Your task to perform on an android device: turn off picture-in-picture Image 0: 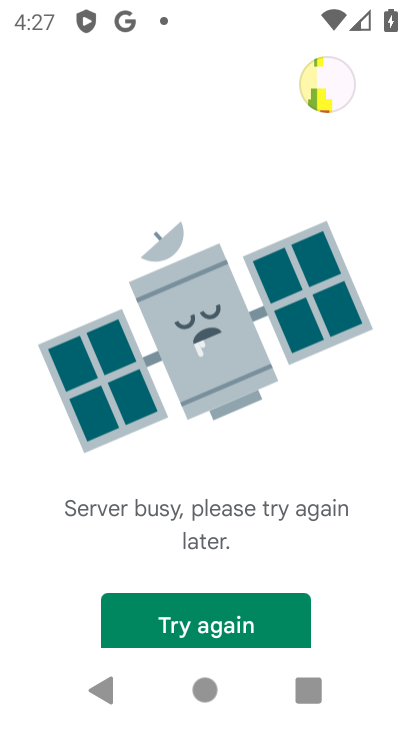
Step 0: press home button
Your task to perform on an android device: turn off picture-in-picture Image 1: 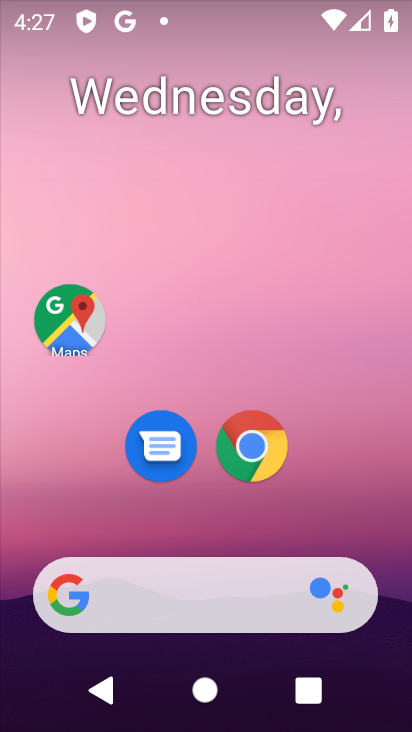
Step 1: drag from (122, 386) to (169, 9)
Your task to perform on an android device: turn off picture-in-picture Image 2: 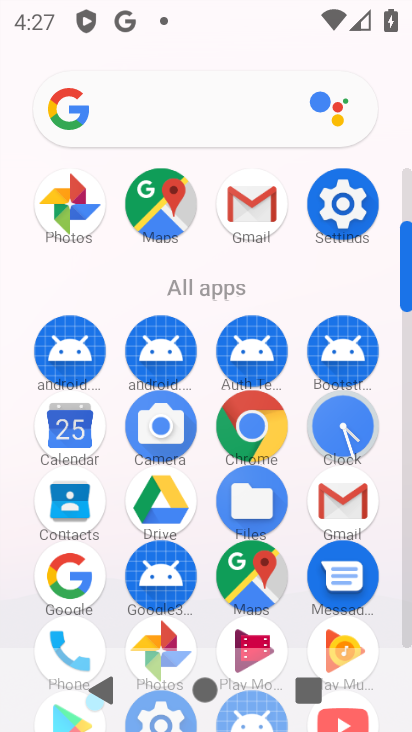
Step 2: drag from (114, 548) to (198, 252)
Your task to perform on an android device: turn off picture-in-picture Image 3: 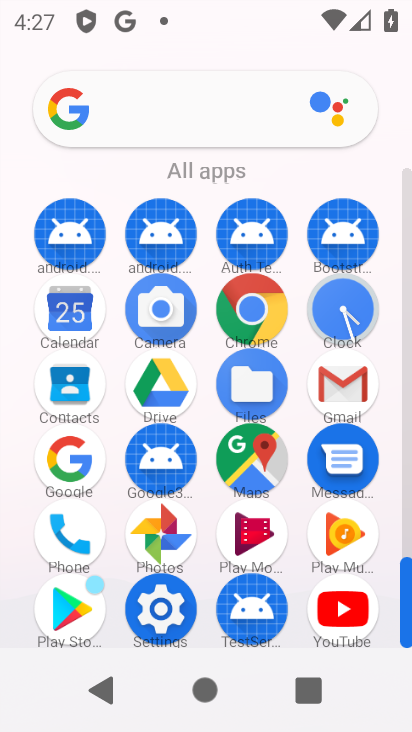
Step 3: click (162, 615)
Your task to perform on an android device: turn off picture-in-picture Image 4: 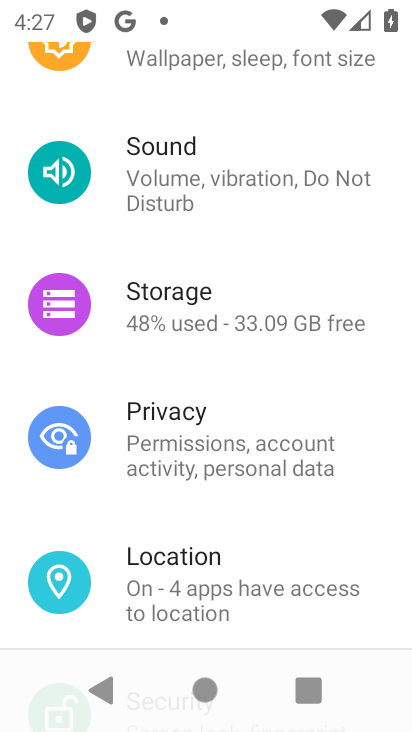
Step 4: drag from (184, 330) to (179, 674)
Your task to perform on an android device: turn off picture-in-picture Image 5: 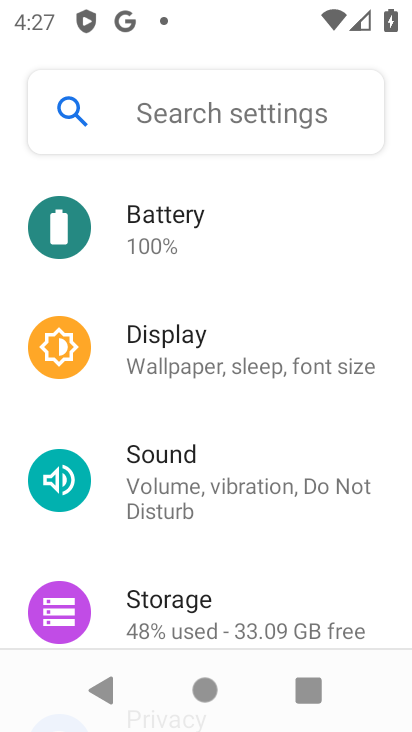
Step 5: drag from (226, 381) to (203, 731)
Your task to perform on an android device: turn off picture-in-picture Image 6: 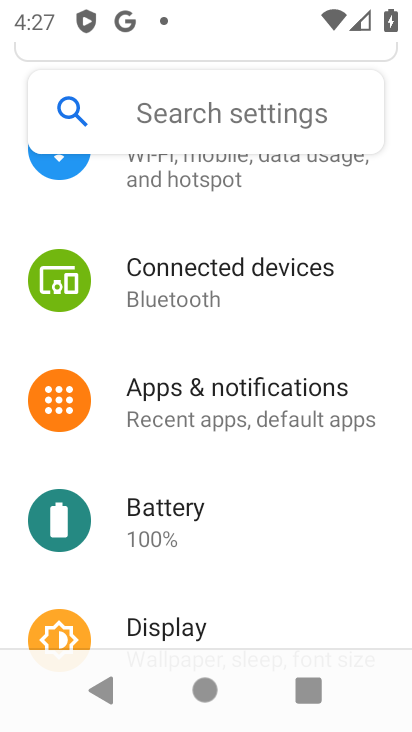
Step 6: click (217, 414)
Your task to perform on an android device: turn off picture-in-picture Image 7: 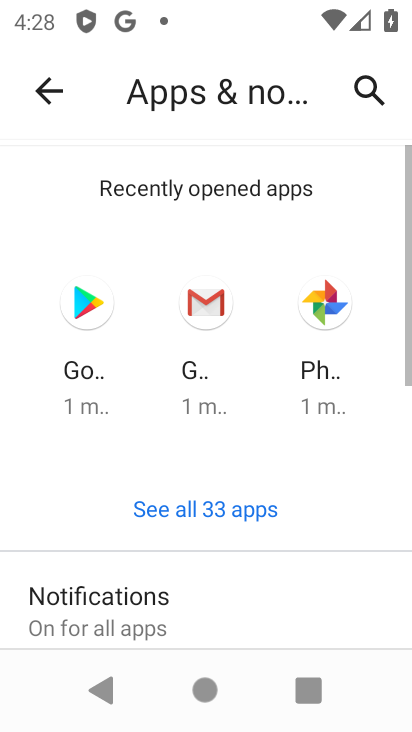
Step 7: drag from (148, 598) to (244, 195)
Your task to perform on an android device: turn off picture-in-picture Image 8: 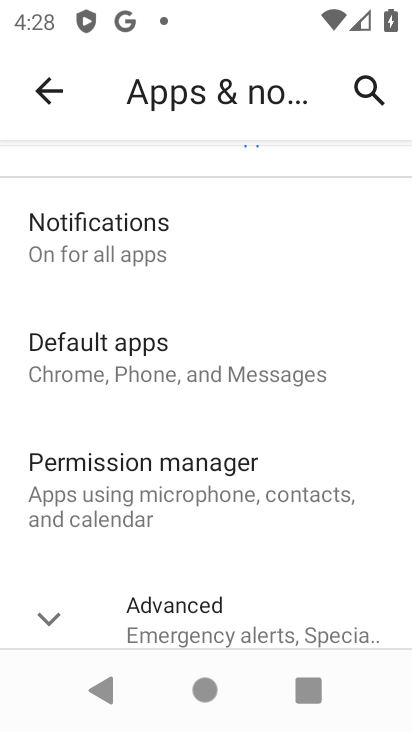
Step 8: drag from (199, 580) to (252, 302)
Your task to perform on an android device: turn off picture-in-picture Image 9: 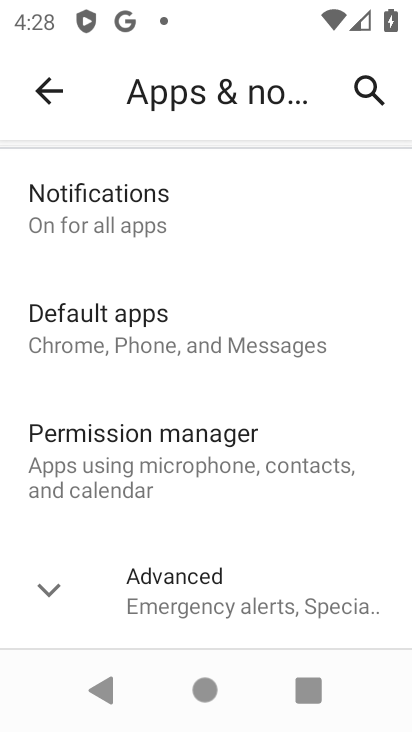
Step 9: click (196, 601)
Your task to perform on an android device: turn off picture-in-picture Image 10: 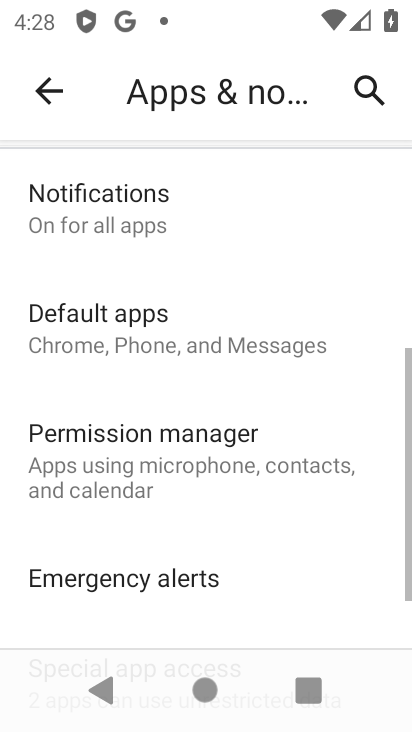
Step 10: drag from (158, 639) to (276, 252)
Your task to perform on an android device: turn off picture-in-picture Image 11: 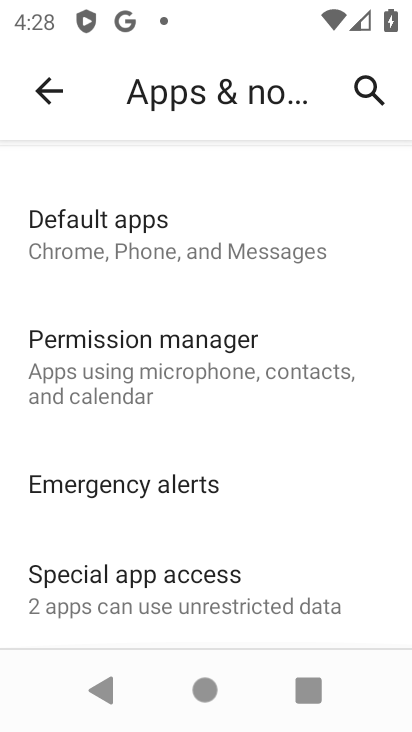
Step 11: click (201, 595)
Your task to perform on an android device: turn off picture-in-picture Image 12: 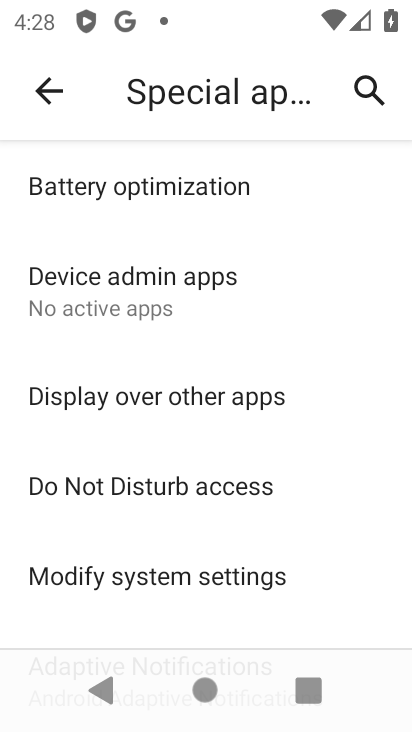
Step 12: drag from (162, 577) to (234, 225)
Your task to perform on an android device: turn off picture-in-picture Image 13: 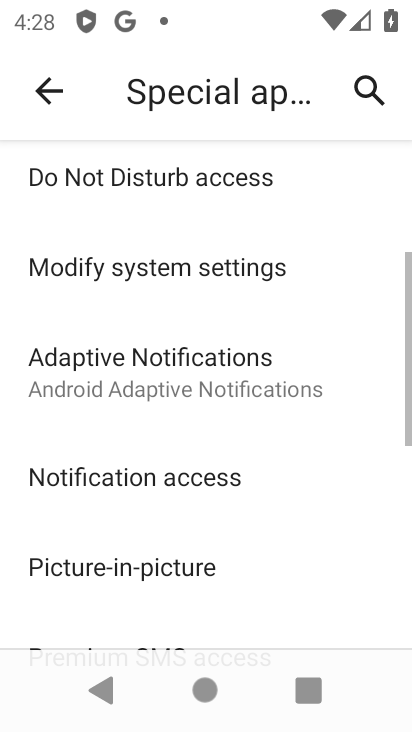
Step 13: click (182, 588)
Your task to perform on an android device: turn off picture-in-picture Image 14: 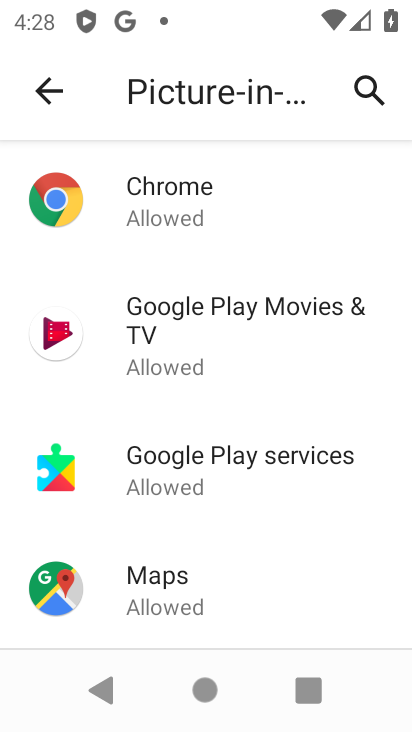
Step 14: click (210, 215)
Your task to perform on an android device: turn off picture-in-picture Image 15: 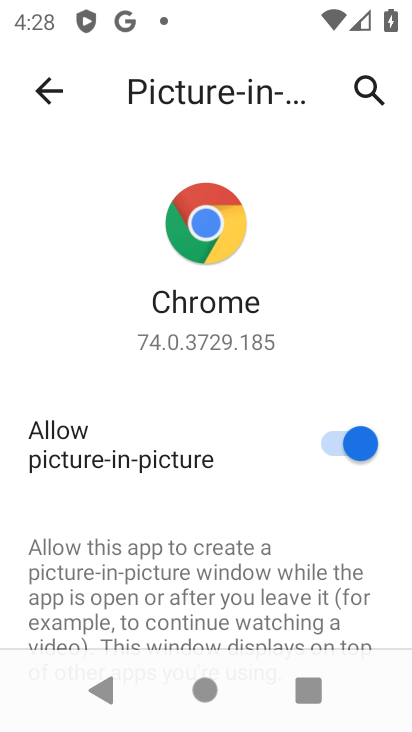
Step 15: click (329, 443)
Your task to perform on an android device: turn off picture-in-picture Image 16: 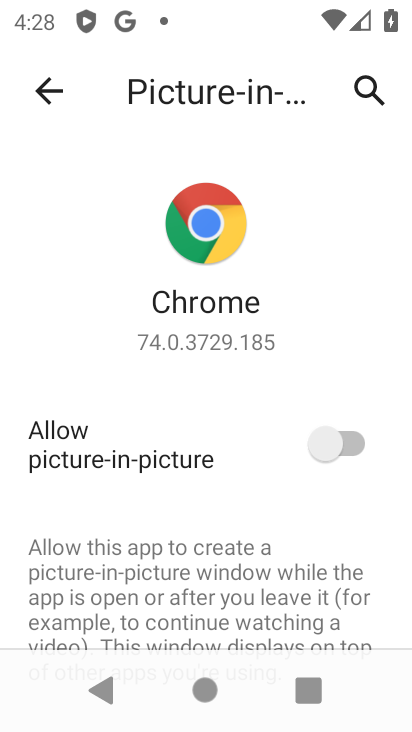
Step 16: press back button
Your task to perform on an android device: turn off picture-in-picture Image 17: 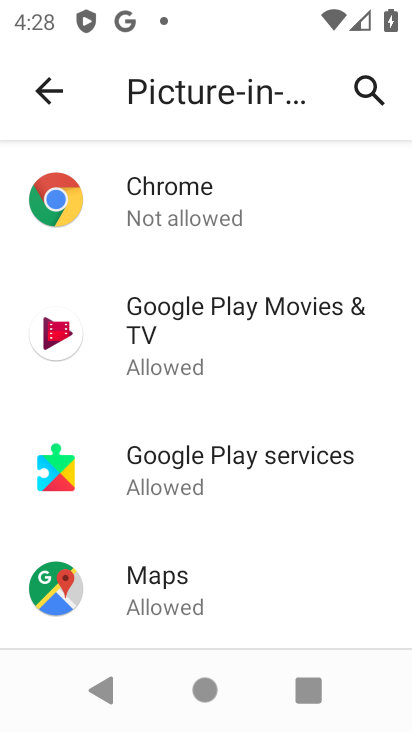
Step 17: click (297, 336)
Your task to perform on an android device: turn off picture-in-picture Image 18: 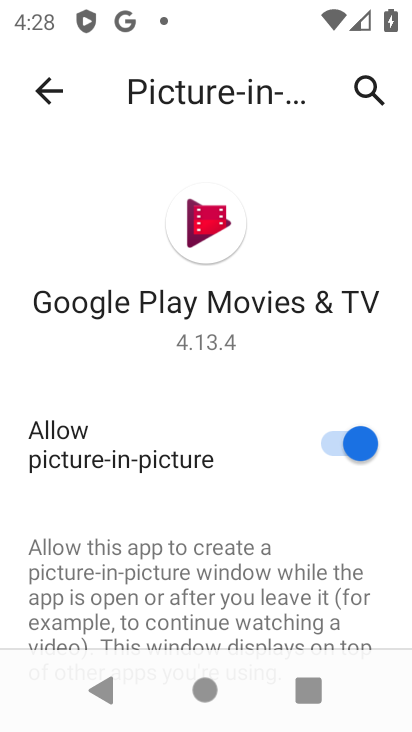
Step 18: click (321, 440)
Your task to perform on an android device: turn off picture-in-picture Image 19: 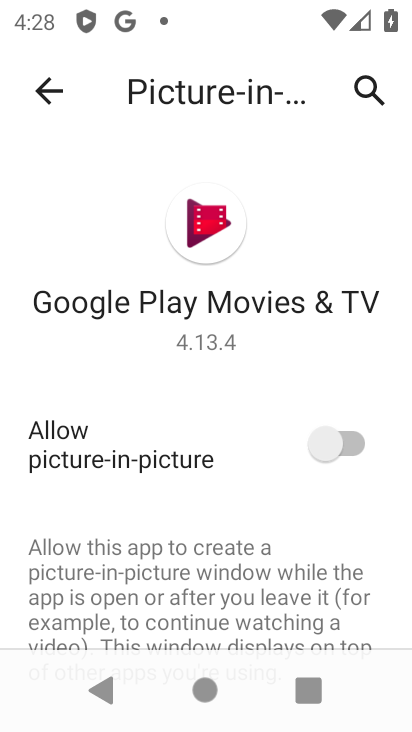
Step 19: press back button
Your task to perform on an android device: turn off picture-in-picture Image 20: 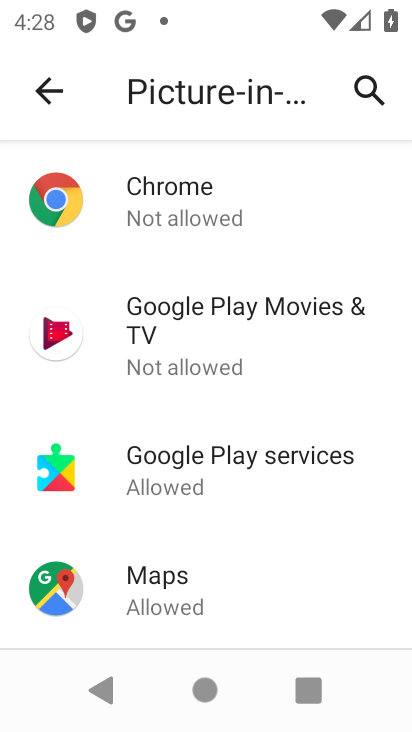
Step 20: click (279, 485)
Your task to perform on an android device: turn off picture-in-picture Image 21: 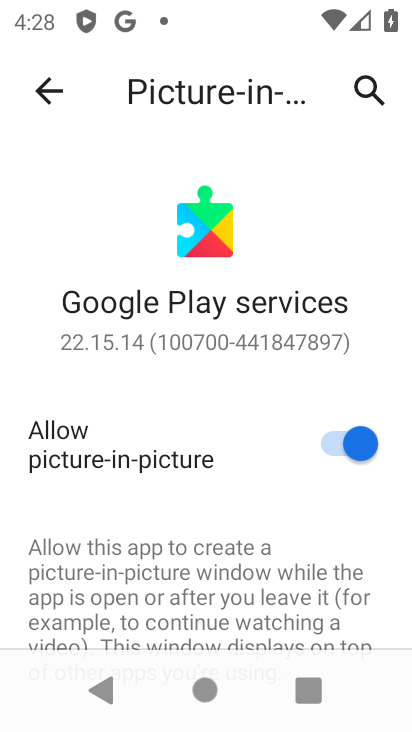
Step 21: click (336, 430)
Your task to perform on an android device: turn off picture-in-picture Image 22: 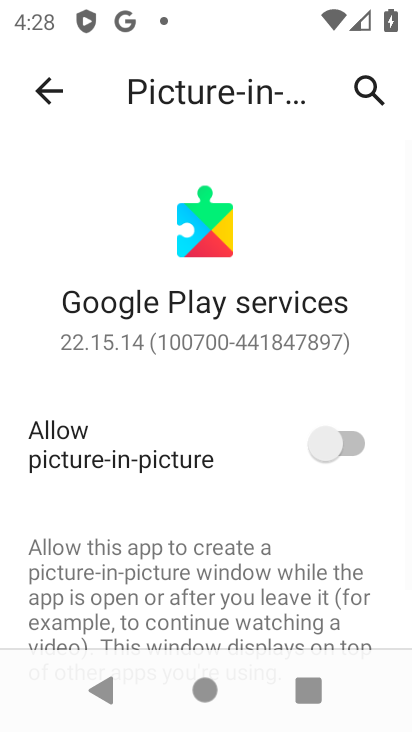
Step 22: press back button
Your task to perform on an android device: turn off picture-in-picture Image 23: 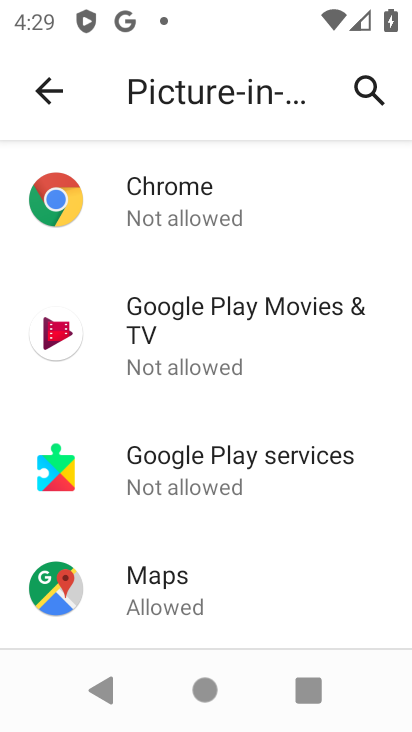
Step 23: drag from (227, 590) to (325, 183)
Your task to perform on an android device: turn off picture-in-picture Image 24: 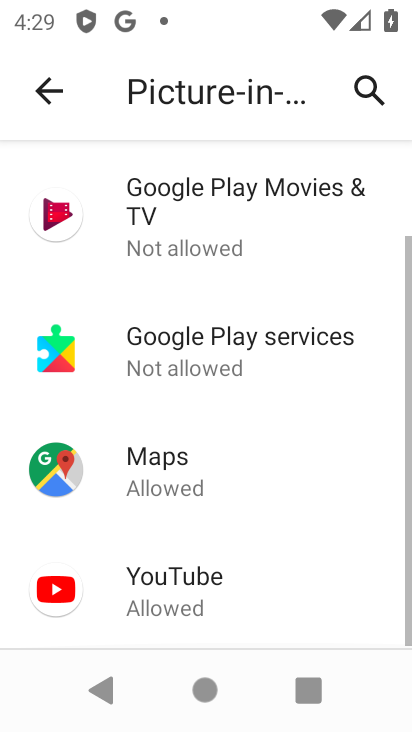
Step 24: click (269, 498)
Your task to perform on an android device: turn off picture-in-picture Image 25: 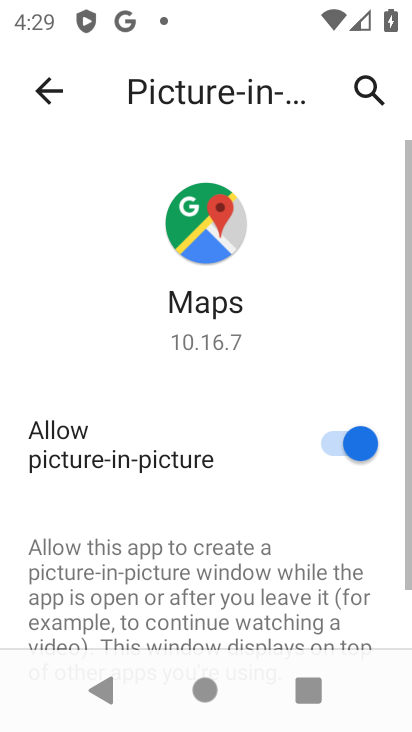
Step 25: click (329, 452)
Your task to perform on an android device: turn off picture-in-picture Image 26: 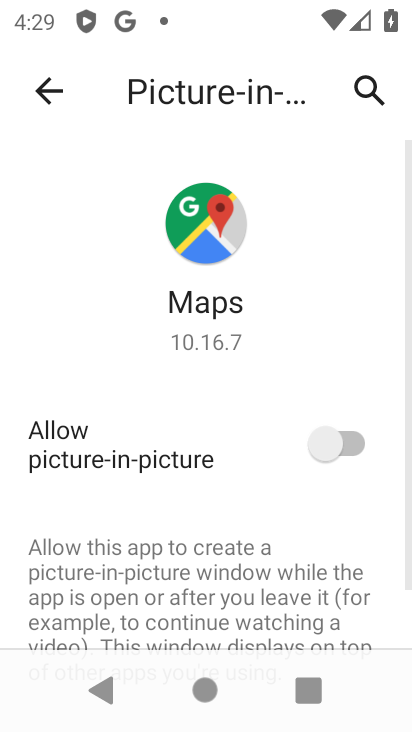
Step 26: press back button
Your task to perform on an android device: turn off picture-in-picture Image 27: 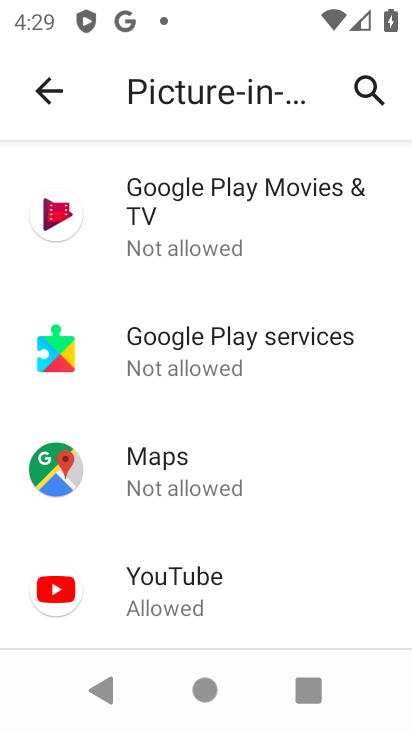
Step 27: click (196, 599)
Your task to perform on an android device: turn off picture-in-picture Image 28: 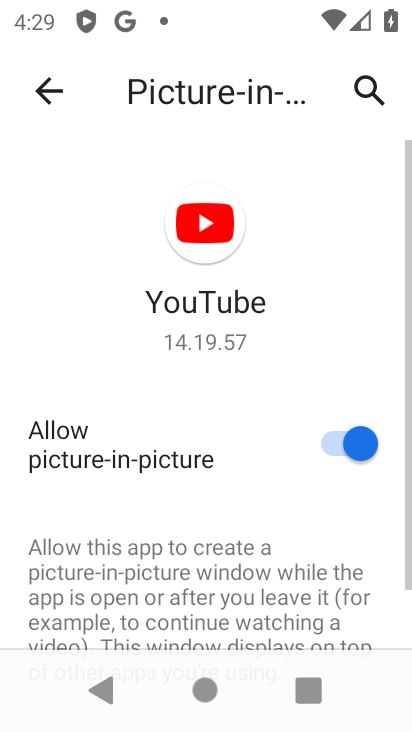
Step 28: click (346, 442)
Your task to perform on an android device: turn off picture-in-picture Image 29: 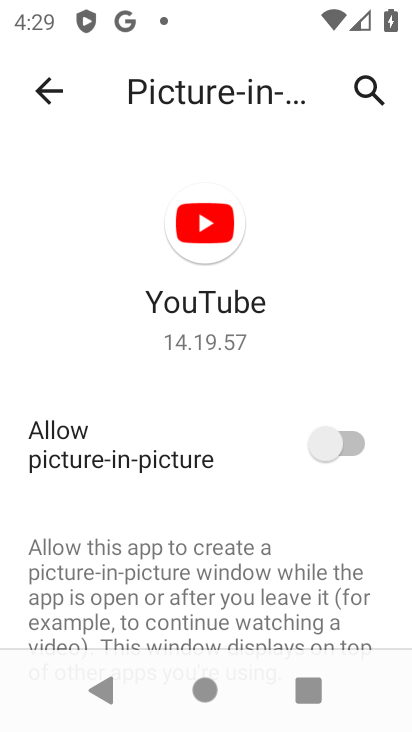
Step 29: task complete